Your task to perform on an android device: toggle javascript in the chrome app Image 0: 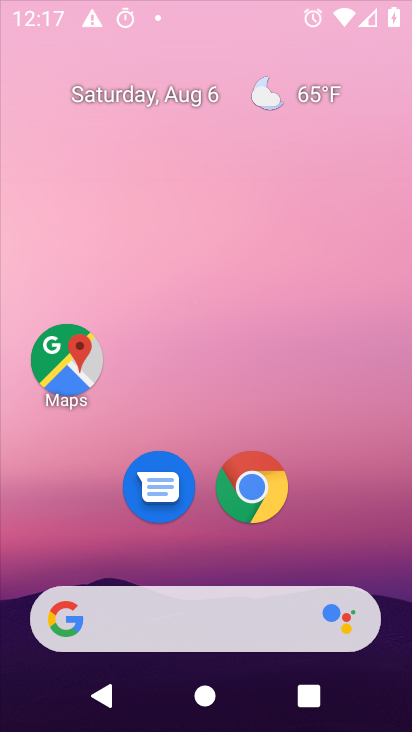
Step 0: drag from (224, 577) to (265, 1)
Your task to perform on an android device: toggle javascript in the chrome app Image 1: 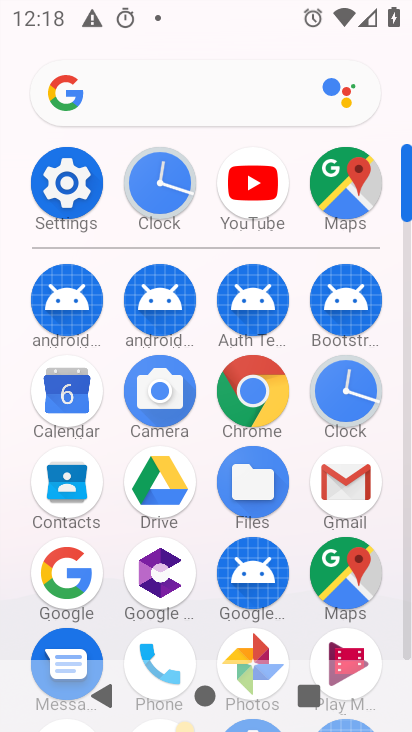
Step 1: click (260, 383)
Your task to perform on an android device: toggle javascript in the chrome app Image 2: 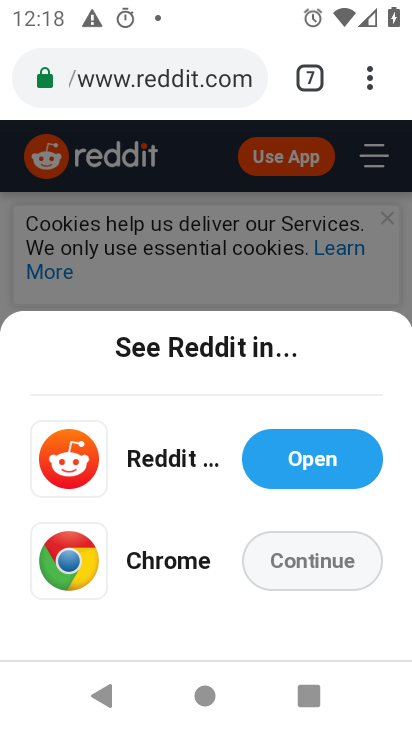
Step 2: drag from (379, 68) to (135, 538)
Your task to perform on an android device: toggle javascript in the chrome app Image 3: 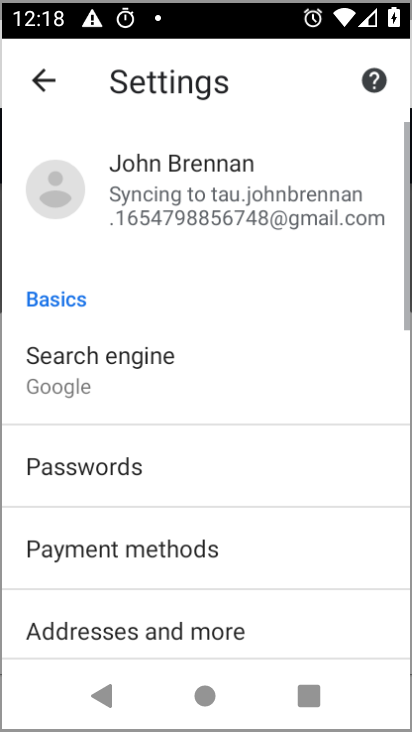
Step 3: drag from (143, 582) to (194, 104)
Your task to perform on an android device: toggle javascript in the chrome app Image 4: 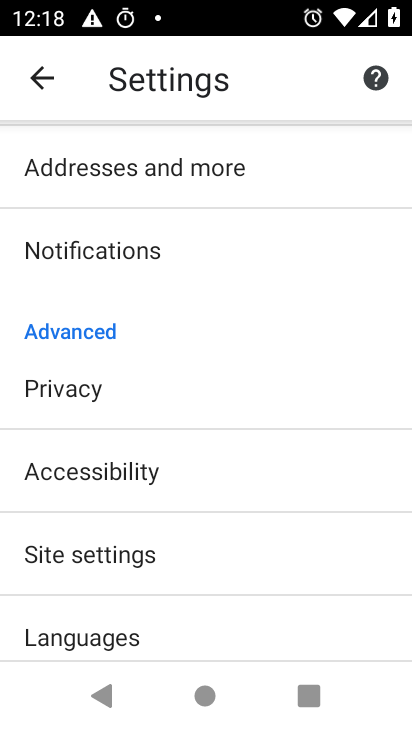
Step 4: click (104, 545)
Your task to perform on an android device: toggle javascript in the chrome app Image 5: 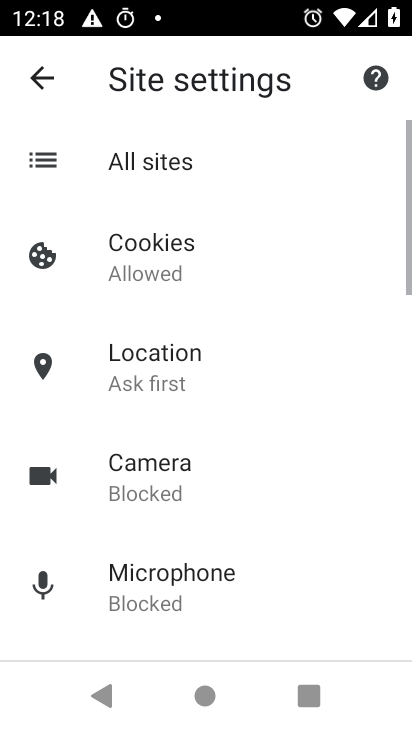
Step 5: drag from (183, 588) to (254, 39)
Your task to perform on an android device: toggle javascript in the chrome app Image 6: 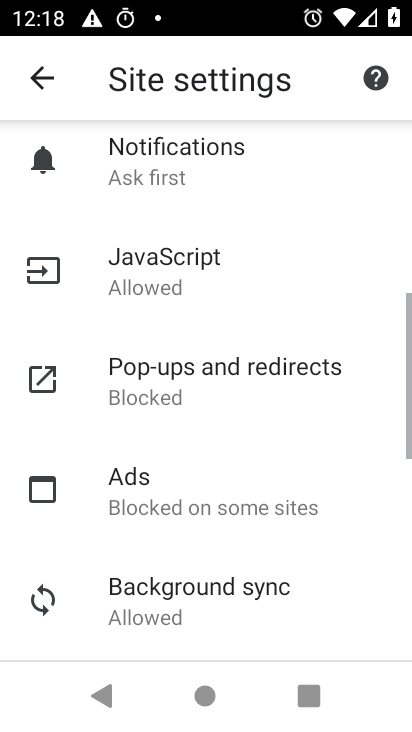
Step 6: click (155, 280)
Your task to perform on an android device: toggle javascript in the chrome app Image 7: 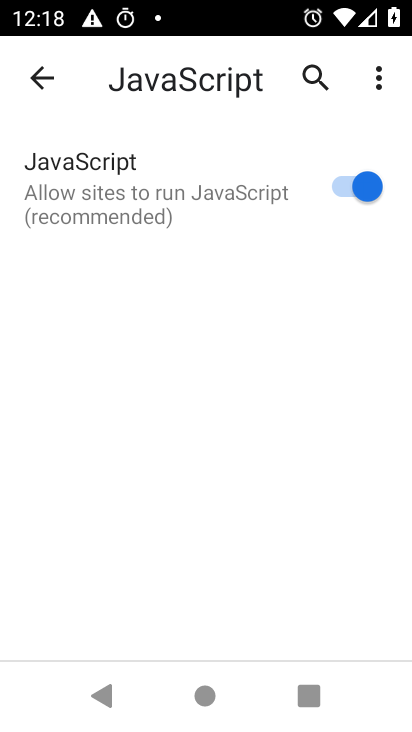
Step 7: click (349, 189)
Your task to perform on an android device: toggle javascript in the chrome app Image 8: 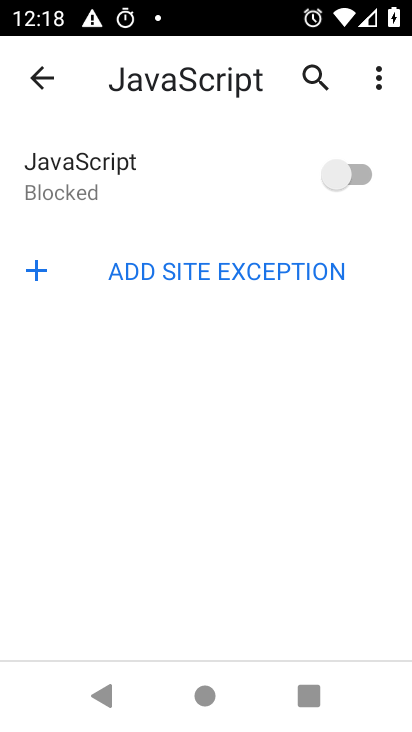
Step 8: task complete